Your task to perform on an android device: Open the contacts Image 0: 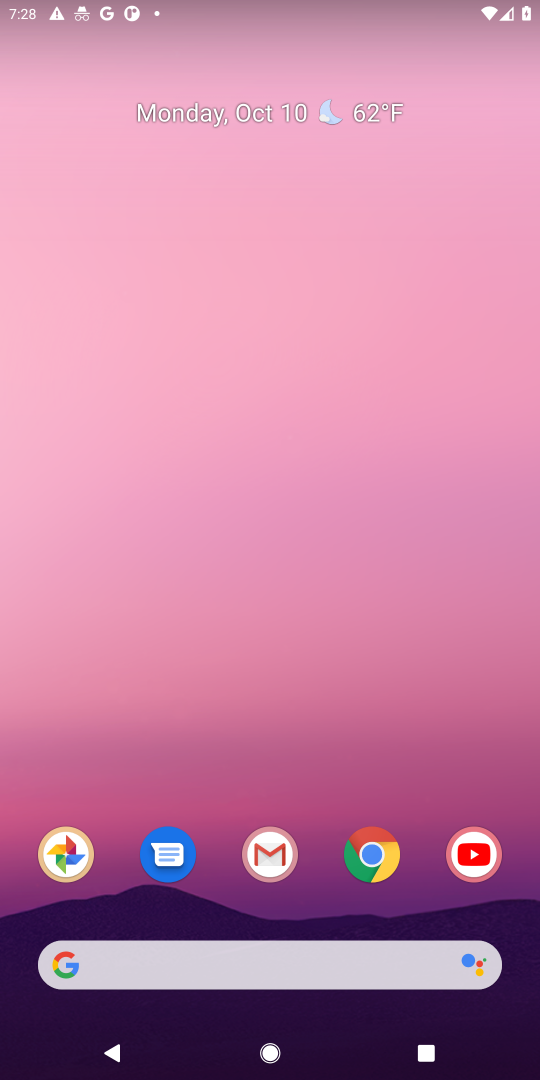
Step 0: drag from (291, 954) to (383, 172)
Your task to perform on an android device: Open the contacts Image 1: 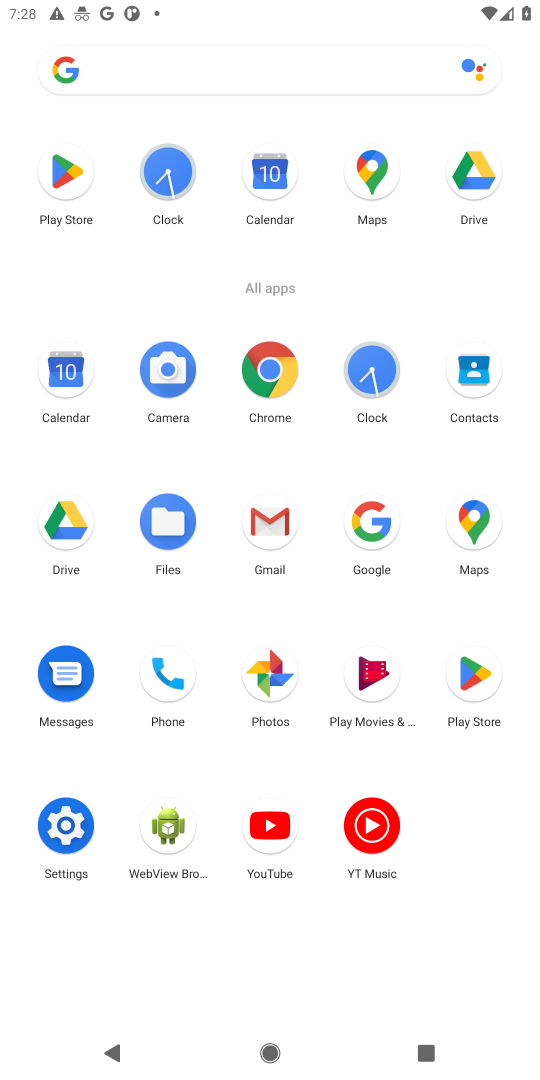
Step 1: click (475, 384)
Your task to perform on an android device: Open the contacts Image 2: 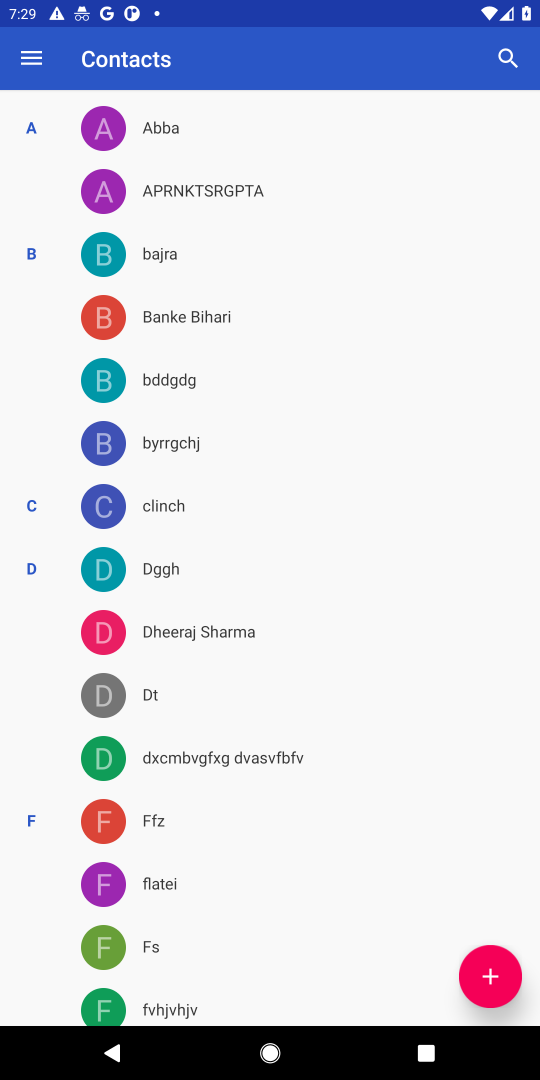
Step 2: task complete